Your task to perform on an android device: Go to Android settings Image 0: 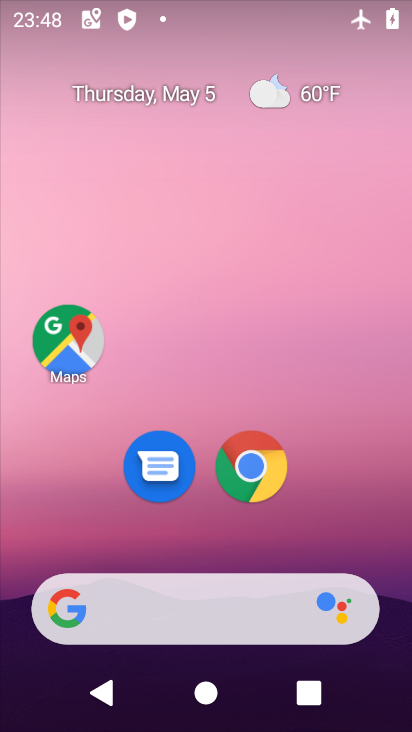
Step 0: drag from (209, 568) to (252, 103)
Your task to perform on an android device: Go to Android settings Image 1: 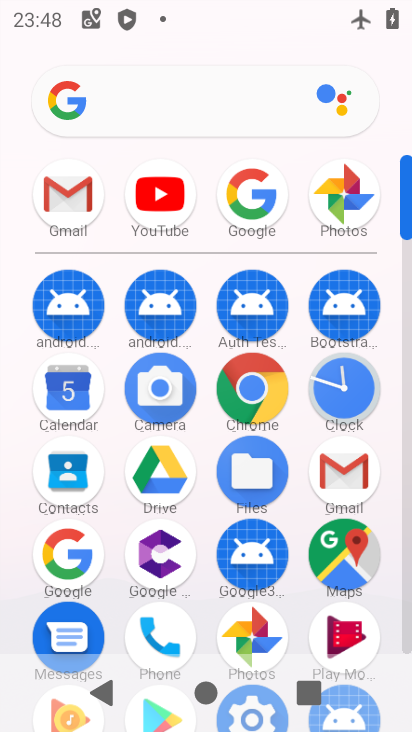
Step 1: drag from (190, 569) to (242, 225)
Your task to perform on an android device: Go to Android settings Image 2: 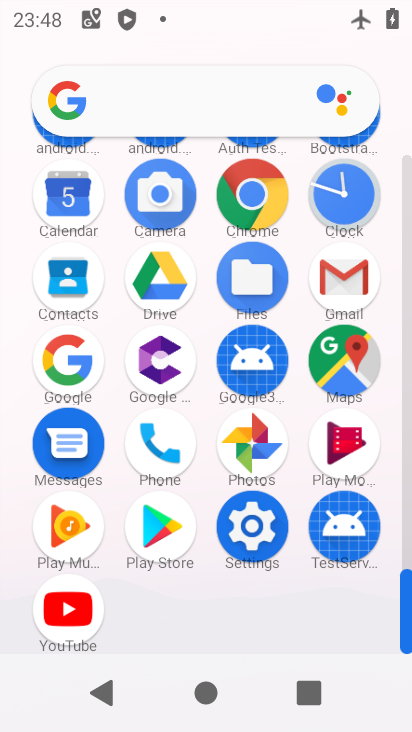
Step 2: click (250, 523)
Your task to perform on an android device: Go to Android settings Image 3: 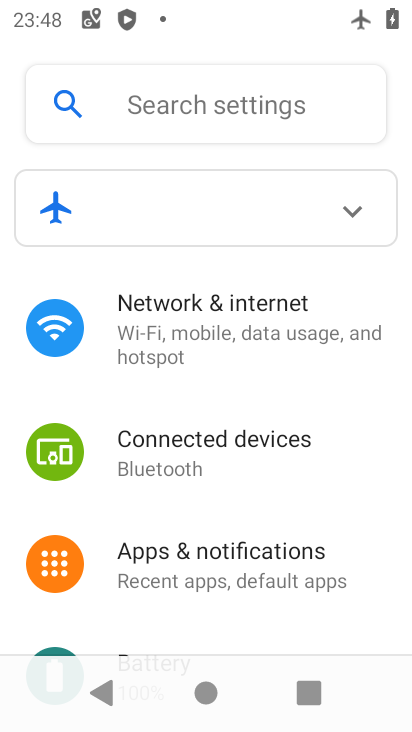
Step 3: task complete